Your task to perform on an android device: open the mobile data screen to see how much data has been used Image 0: 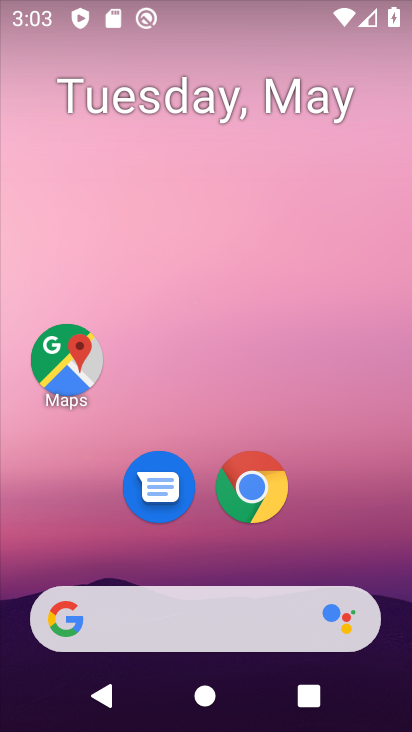
Step 0: drag from (240, 556) to (199, 141)
Your task to perform on an android device: open the mobile data screen to see how much data has been used Image 1: 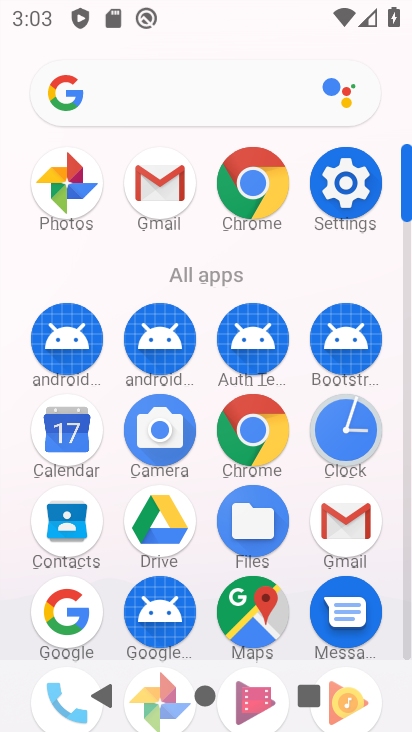
Step 1: click (335, 209)
Your task to perform on an android device: open the mobile data screen to see how much data has been used Image 2: 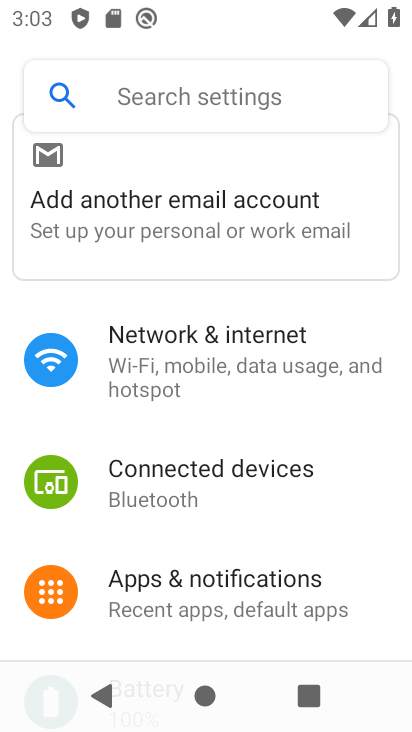
Step 2: click (233, 340)
Your task to perform on an android device: open the mobile data screen to see how much data has been used Image 3: 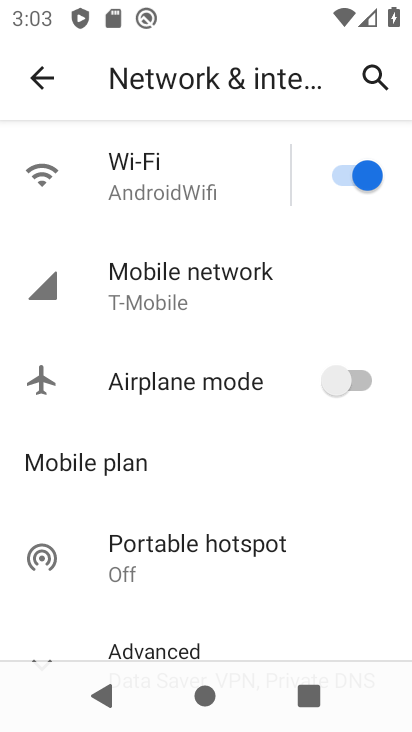
Step 3: click (239, 296)
Your task to perform on an android device: open the mobile data screen to see how much data has been used Image 4: 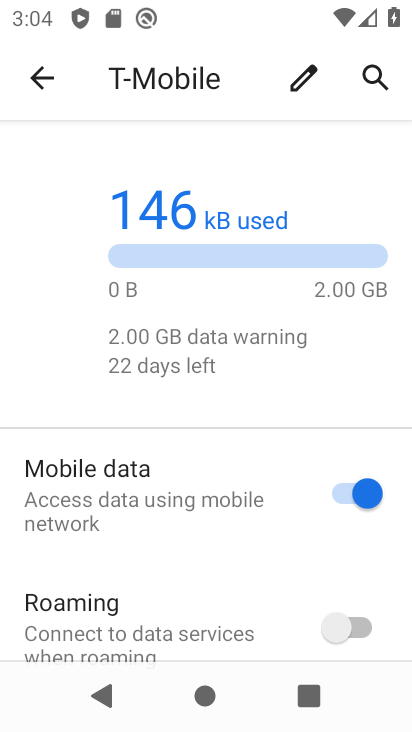
Step 4: task complete